Your task to perform on an android device: When is my next meeting? Image 0: 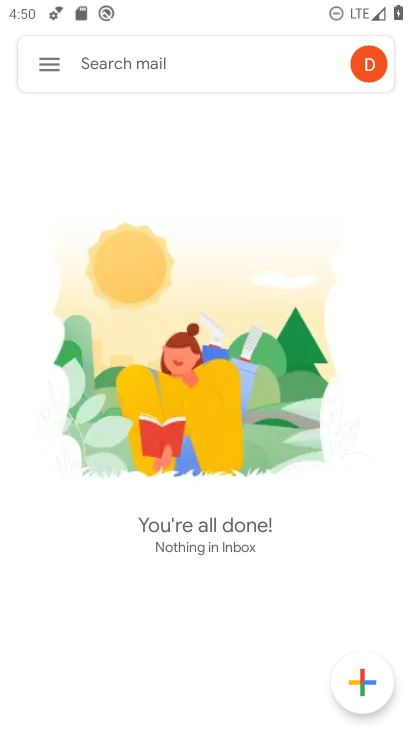
Step 0: press home button
Your task to perform on an android device: When is my next meeting? Image 1: 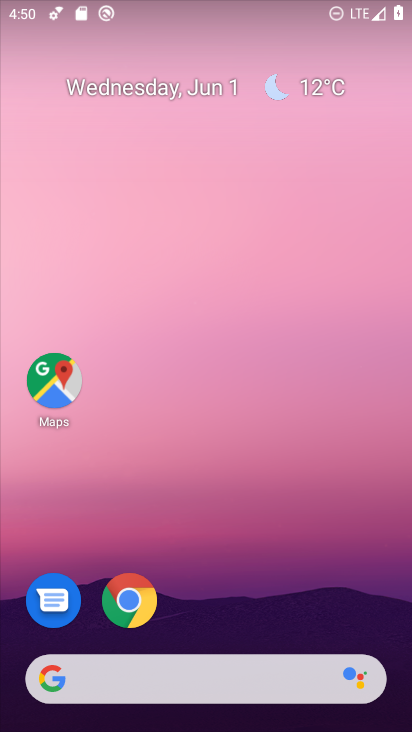
Step 1: drag from (370, 614) to (283, 39)
Your task to perform on an android device: When is my next meeting? Image 2: 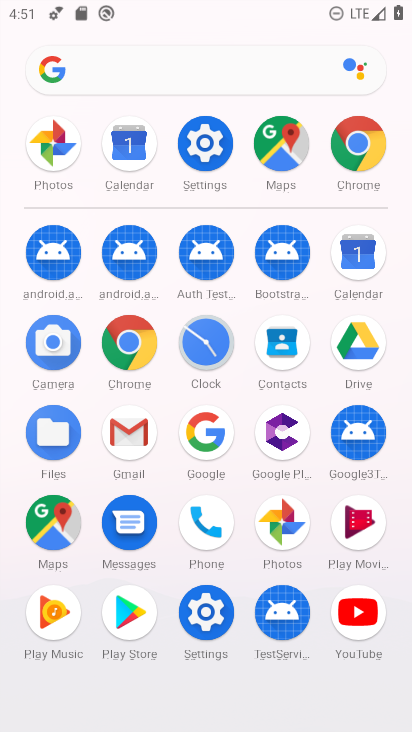
Step 2: click (354, 250)
Your task to perform on an android device: When is my next meeting? Image 3: 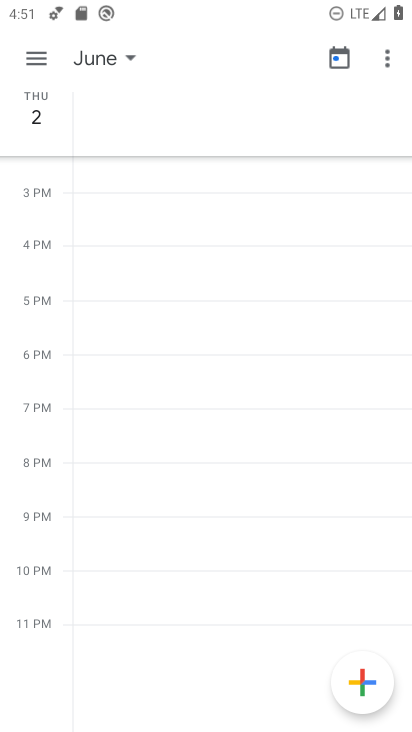
Step 3: click (23, 55)
Your task to perform on an android device: When is my next meeting? Image 4: 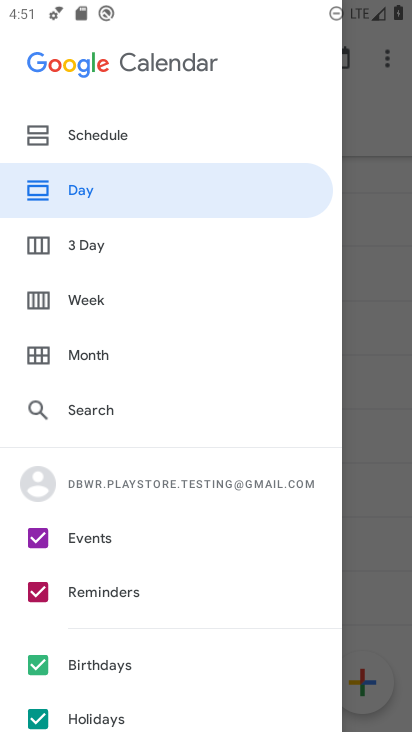
Step 4: click (97, 141)
Your task to perform on an android device: When is my next meeting? Image 5: 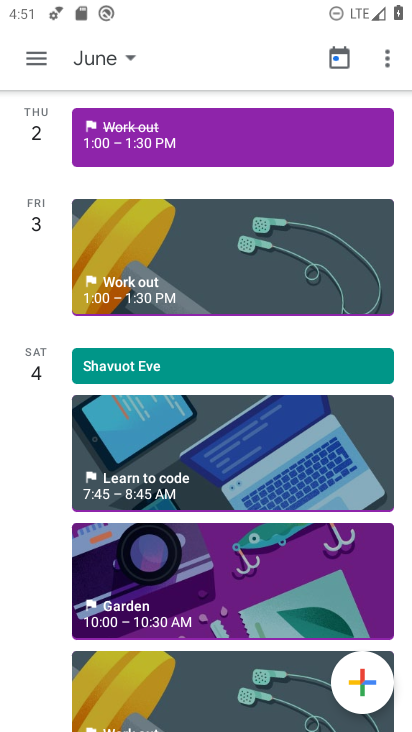
Step 5: task complete